Your task to perform on an android device: find which apps use the phone's location Image 0: 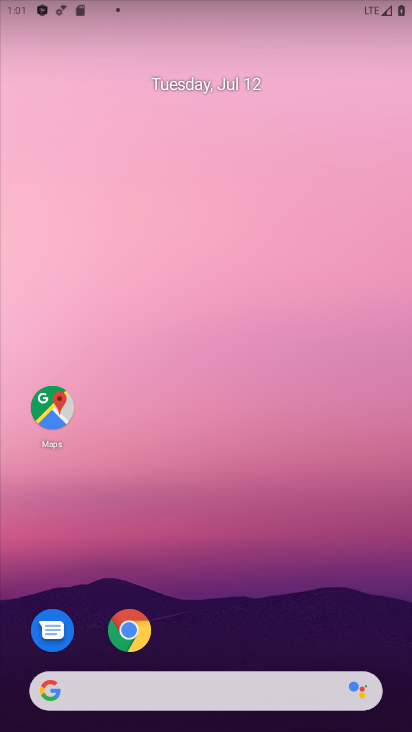
Step 0: drag from (298, 497) to (234, 147)
Your task to perform on an android device: find which apps use the phone's location Image 1: 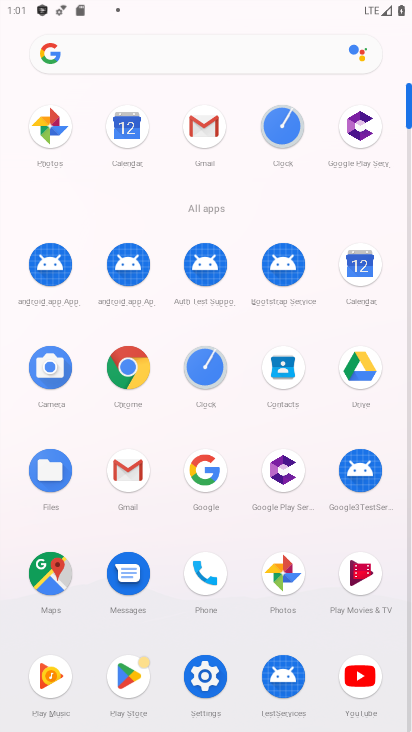
Step 1: click (208, 670)
Your task to perform on an android device: find which apps use the phone's location Image 2: 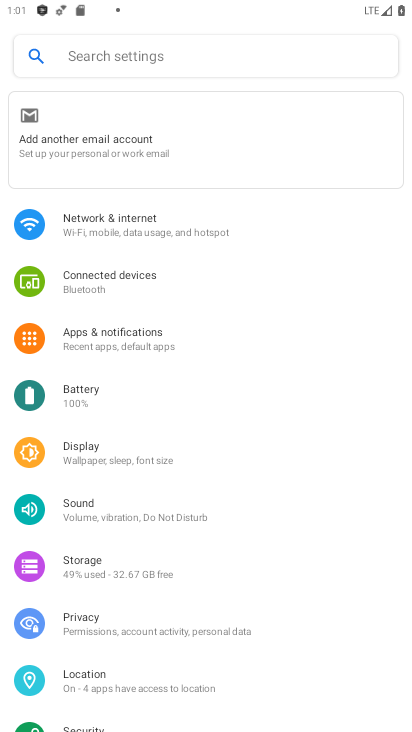
Step 2: click (83, 672)
Your task to perform on an android device: find which apps use the phone's location Image 3: 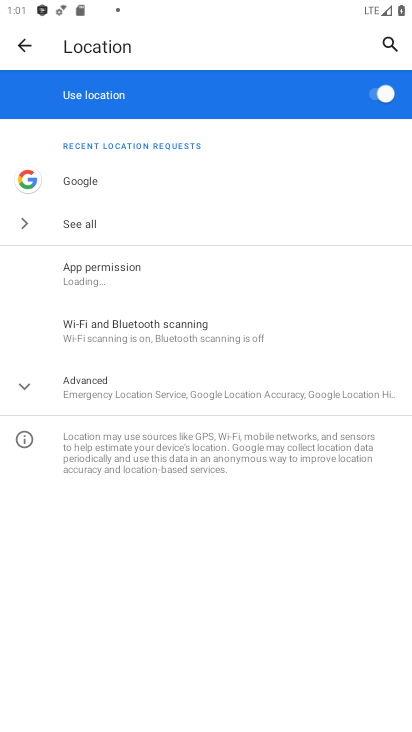
Step 3: click (27, 224)
Your task to perform on an android device: find which apps use the phone's location Image 4: 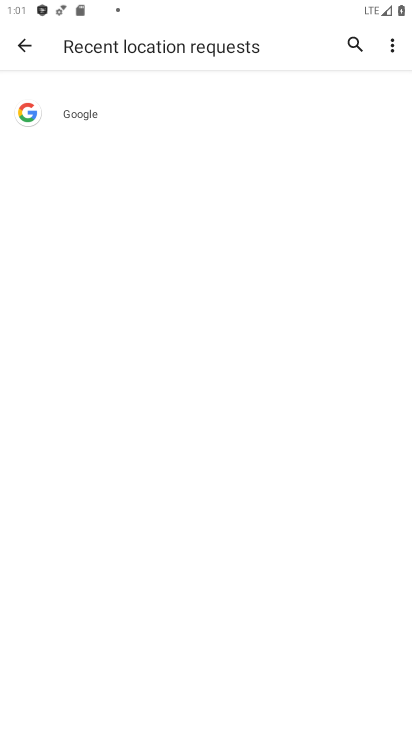
Step 4: task complete